Your task to perform on an android device: Open Google Image 0: 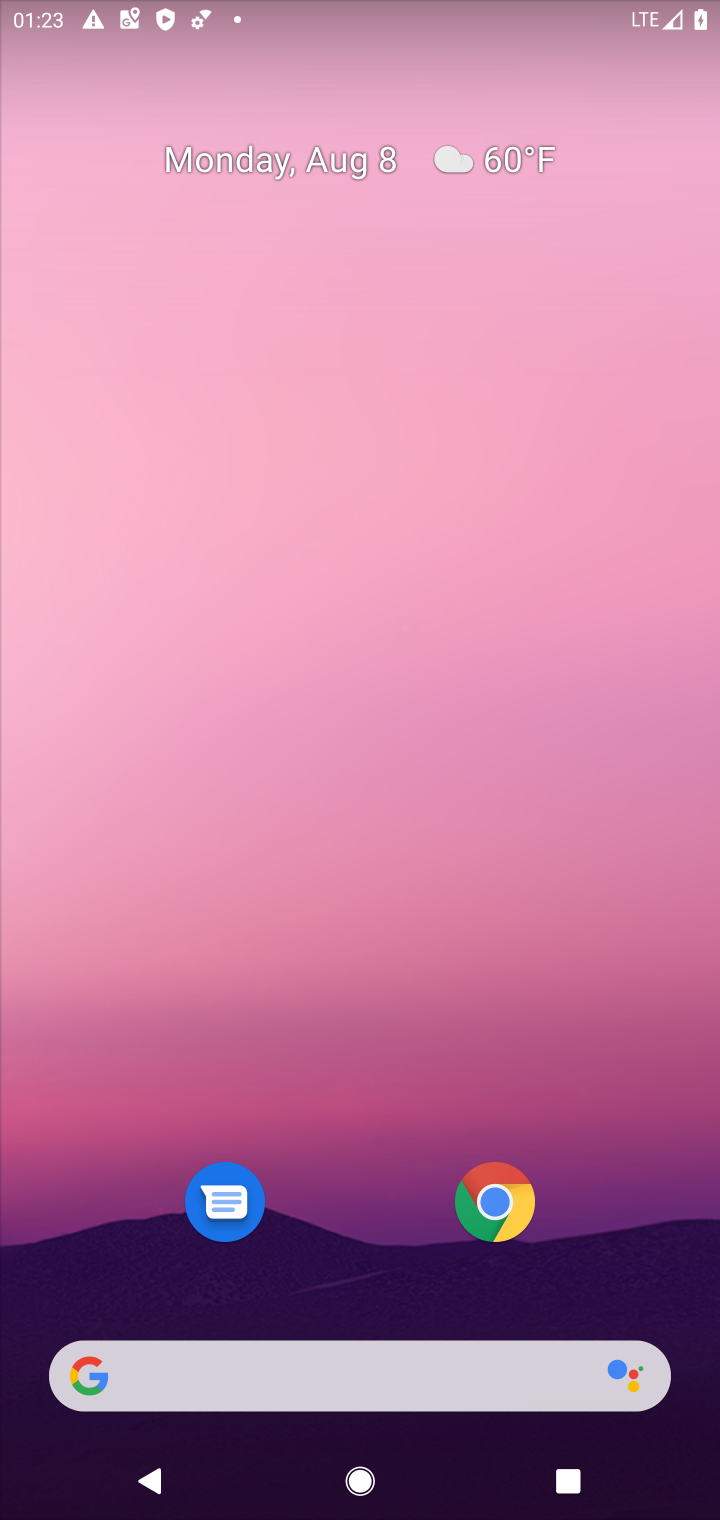
Step 0: click (282, 1374)
Your task to perform on an android device: Open Google Image 1: 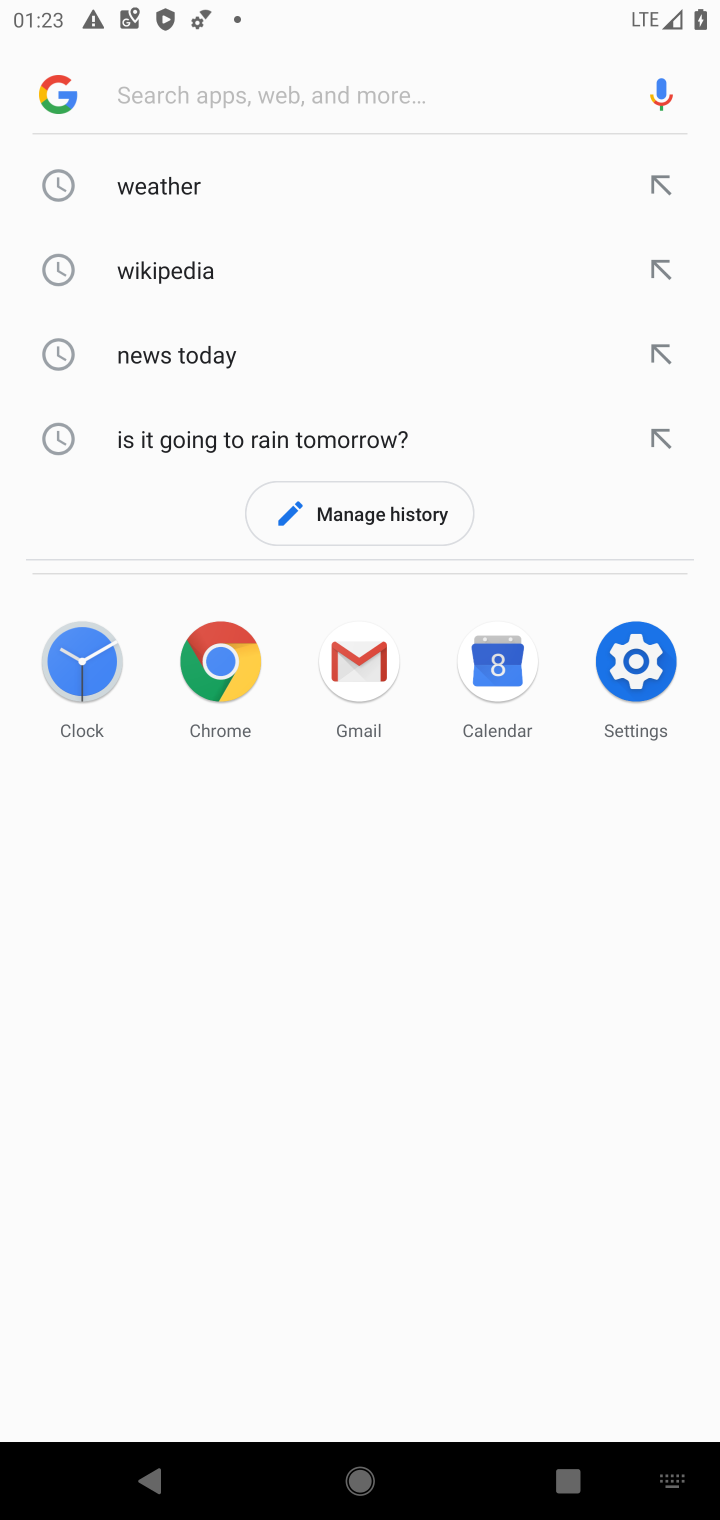
Step 1: task complete